Your task to perform on an android device: What's the news in Ecuador? Image 0: 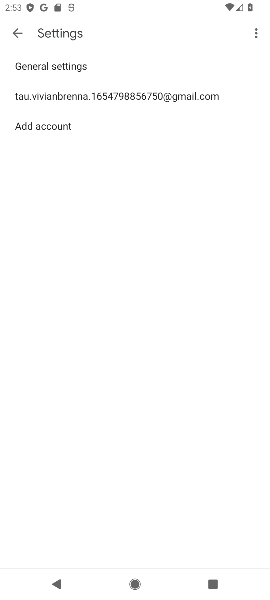
Step 0: press home button
Your task to perform on an android device: What's the news in Ecuador? Image 1: 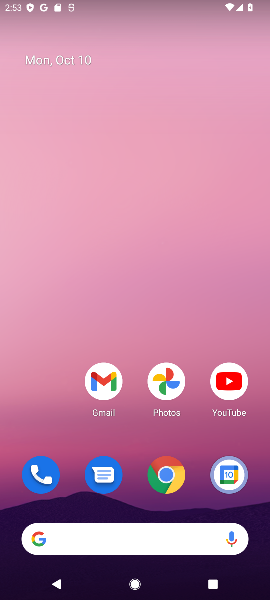
Step 1: drag from (124, 475) to (196, 14)
Your task to perform on an android device: What's the news in Ecuador? Image 2: 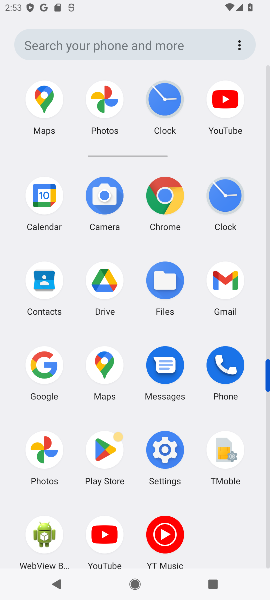
Step 2: click (42, 385)
Your task to perform on an android device: What's the news in Ecuador? Image 3: 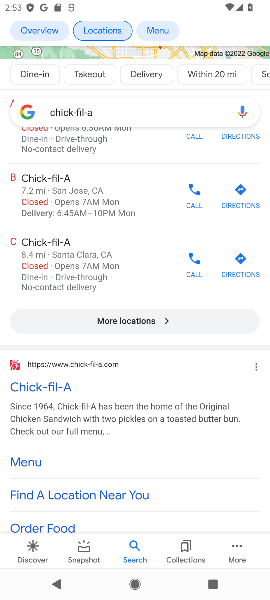
Step 3: drag from (134, 260) to (132, 508)
Your task to perform on an android device: What's the news in Ecuador? Image 4: 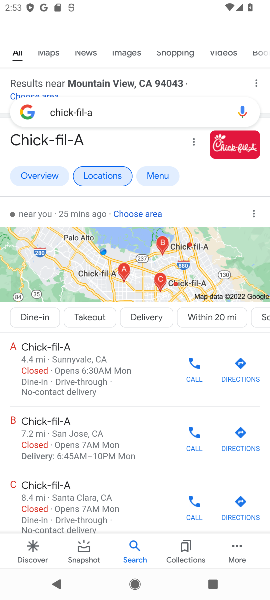
Step 4: drag from (170, 244) to (160, 546)
Your task to perform on an android device: What's the news in Ecuador? Image 5: 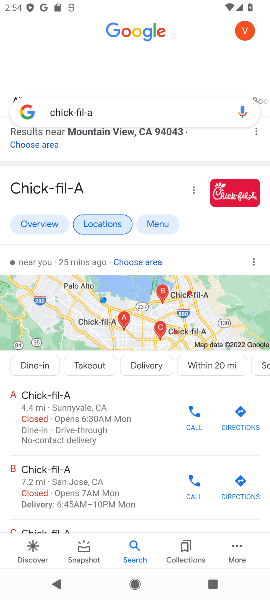
Step 5: click (179, 106)
Your task to perform on an android device: What's the news in Ecuador? Image 6: 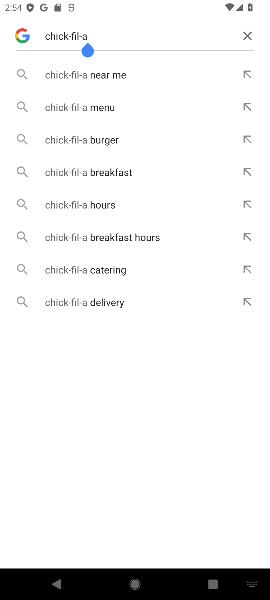
Step 6: click (238, 37)
Your task to perform on an android device: What's the news in Ecuador? Image 7: 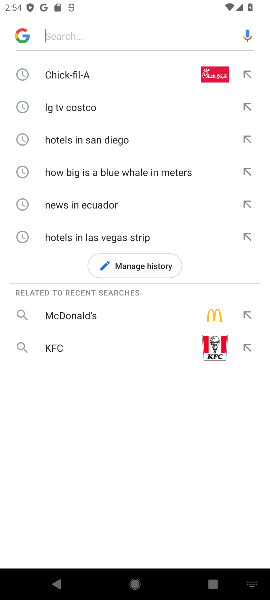
Step 7: type "news in Ecuador"
Your task to perform on an android device: What's the news in Ecuador? Image 8: 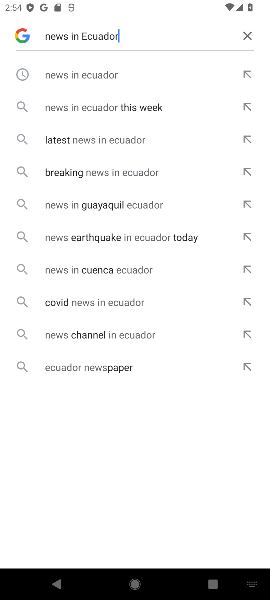
Step 8: click (123, 71)
Your task to perform on an android device: What's the news in Ecuador? Image 9: 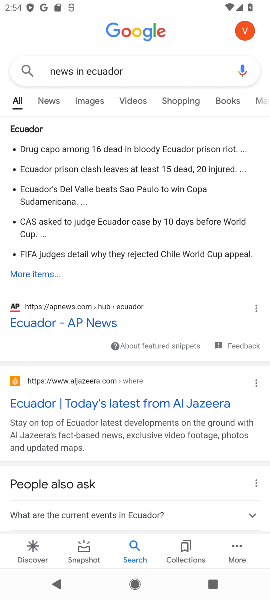
Step 9: task complete